Your task to perform on an android device: Open wifi settings Image 0: 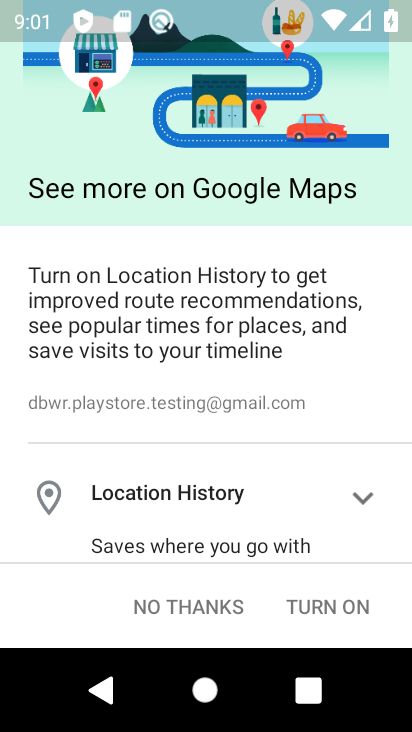
Step 0: press home button
Your task to perform on an android device: Open wifi settings Image 1: 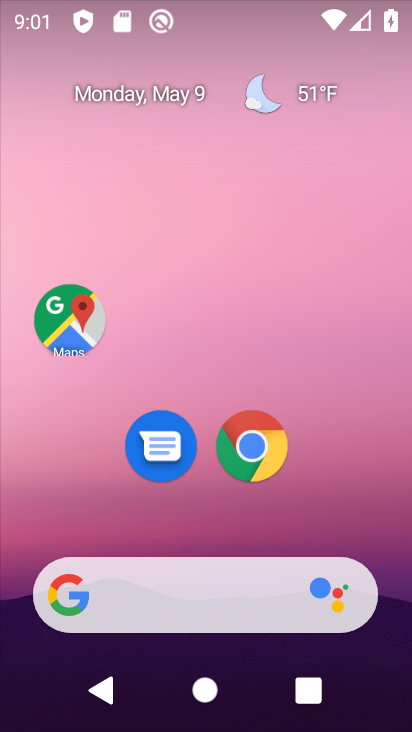
Step 1: drag from (323, 513) to (325, 105)
Your task to perform on an android device: Open wifi settings Image 2: 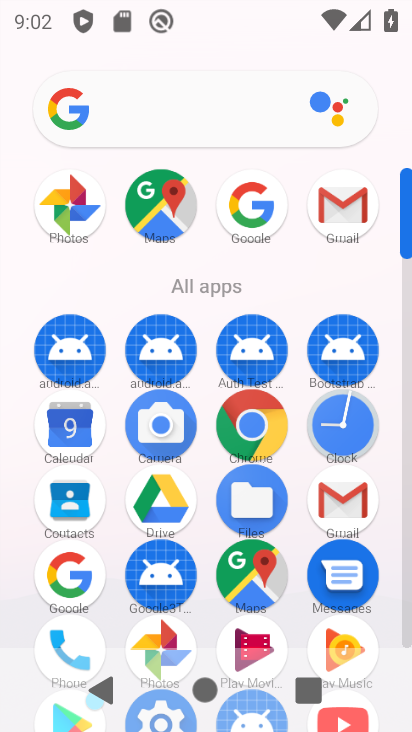
Step 2: drag from (200, 536) to (203, 165)
Your task to perform on an android device: Open wifi settings Image 3: 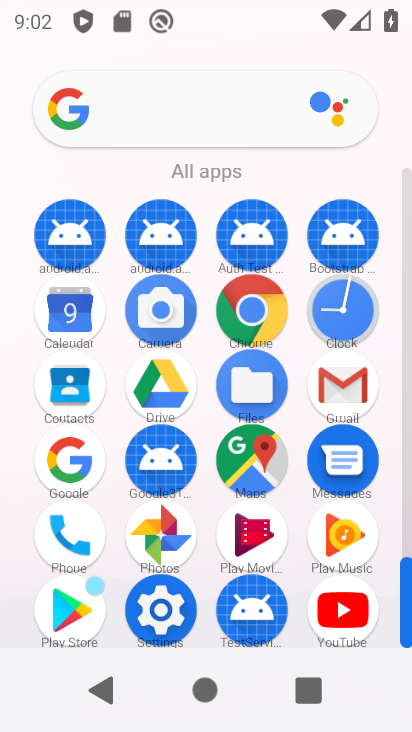
Step 3: click (136, 609)
Your task to perform on an android device: Open wifi settings Image 4: 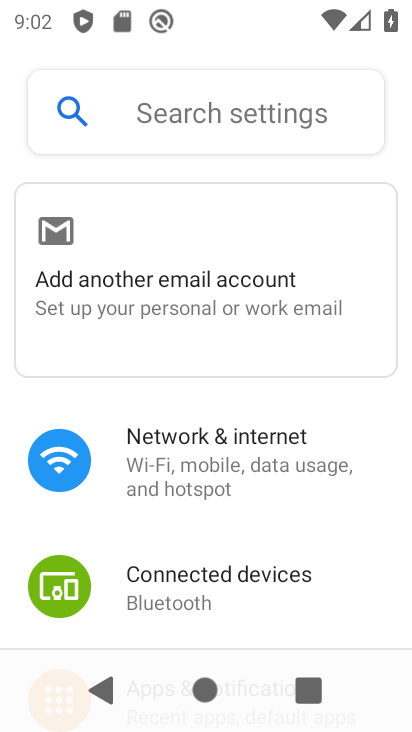
Step 4: click (230, 486)
Your task to perform on an android device: Open wifi settings Image 5: 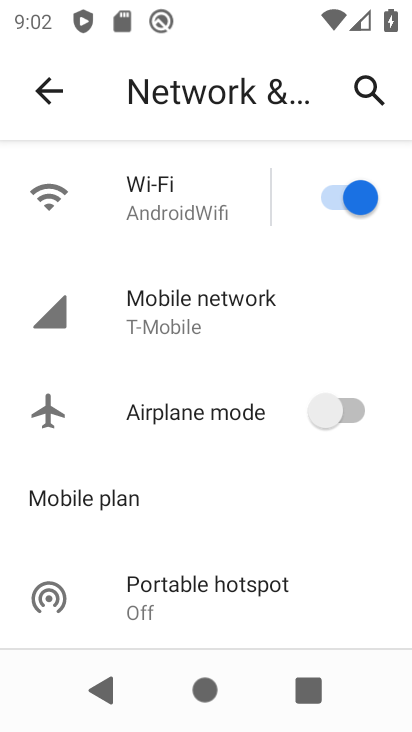
Step 5: click (182, 183)
Your task to perform on an android device: Open wifi settings Image 6: 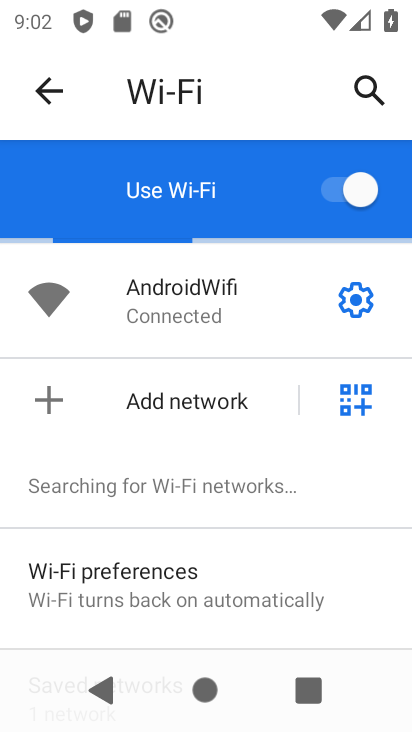
Step 6: task complete